Your task to perform on an android device: Open sound settings Image 0: 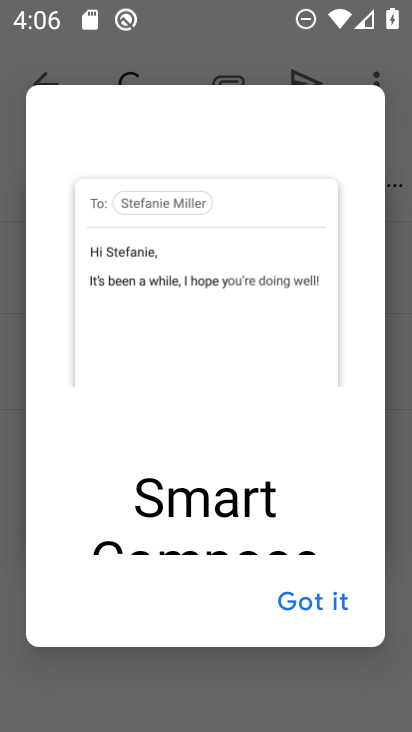
Step 0: press home button
Your task to perform on an android device: Open sound settings Image 1: 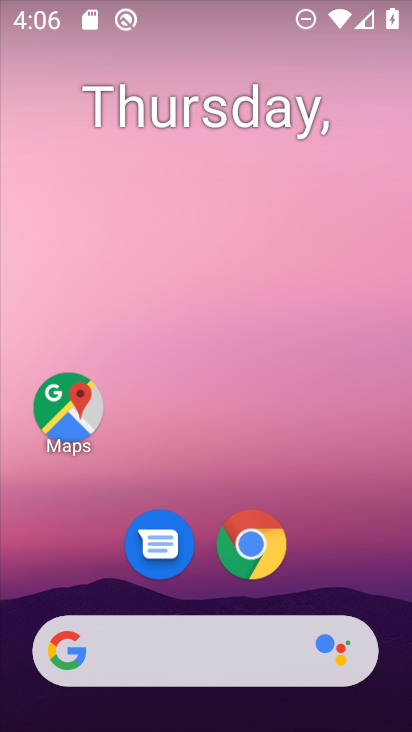
Step 1: drag from (353, 540) to (356, 143)
Your task to perform on an android device: Open sound settings Image 2: 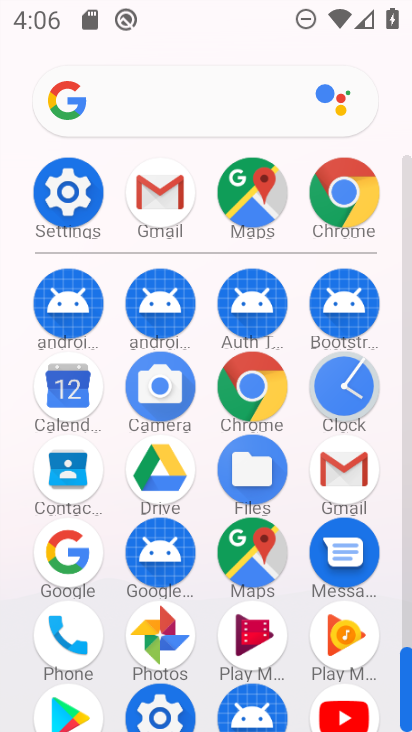
Step 2: click (63, 217)
Your task to perform on an android device: Open sound settings Image 3: 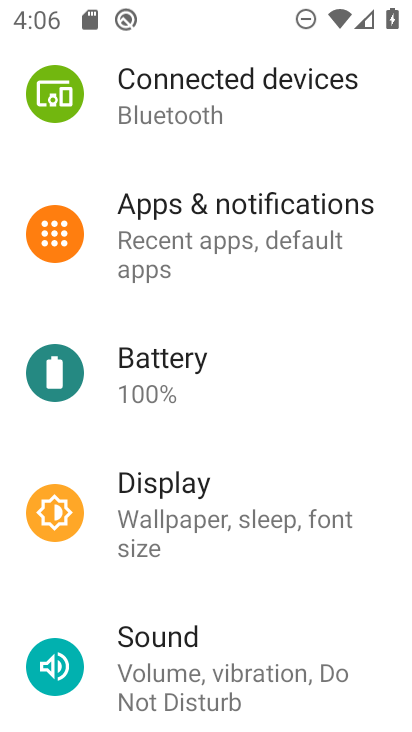
Step 3: click (154, 665)
Your task to perform on an android device: Open sound settings Image 4: 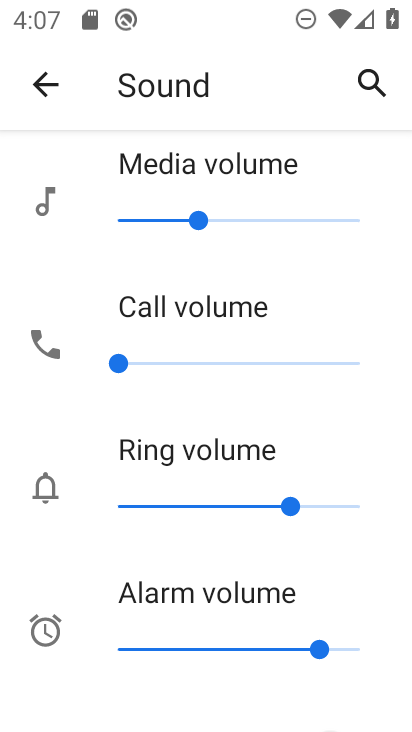
Step 4: press home button
Your task to perform on an android device: Open sound settings Image 5: 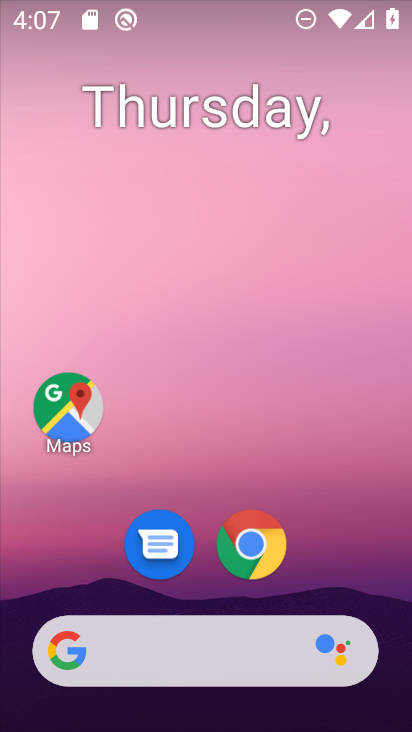
Step 5: drag from (347, 576) to (304, 163)
Your task to perform on an android device: Open sound settings Image 6: 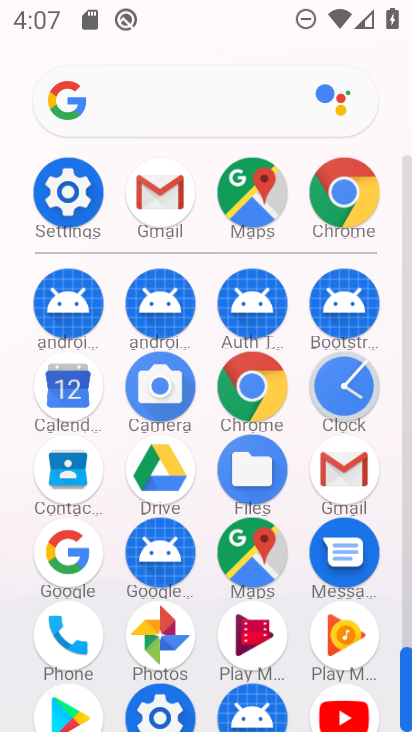
Step 6: click (66, 217)
Your task to perform on an android device: Open sound settings Image 7: 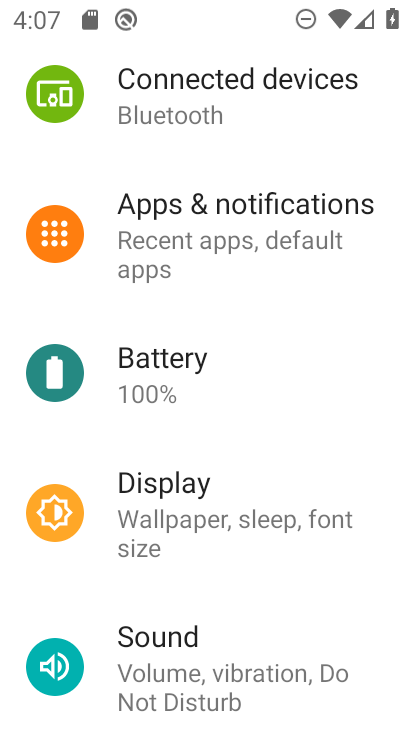
Step 7: click (164, 667)
Your task to perform on an android device: Open sound settings Image 8: 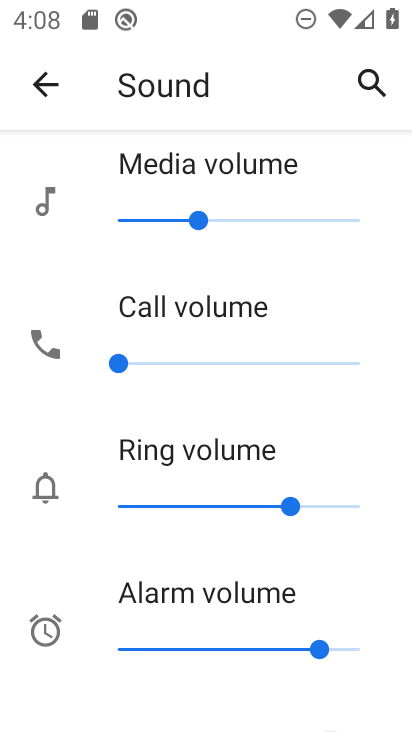
Step 8: task complete